Your task to perform on an android device: Open internet settings Image 0: 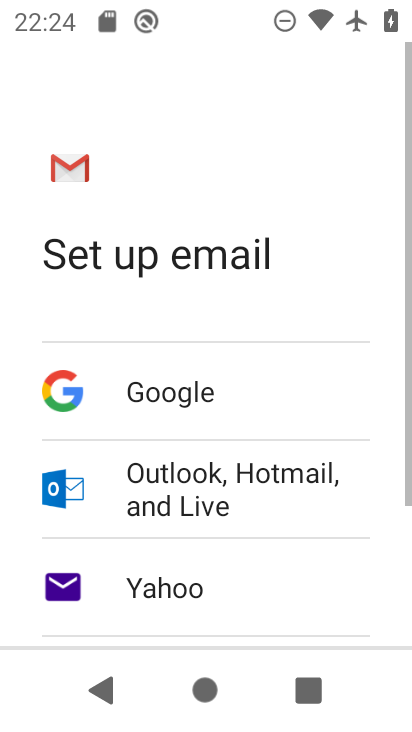
Step 0: press home button
Your task to perform on an android device: Open internet settings Image 1: 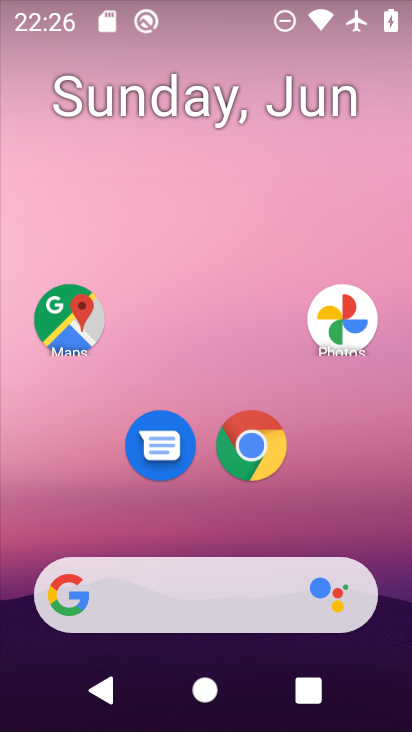
Step 1: drag from (285, 519) to (246, 36)
Your task to perform on an android device: Open internet settings Image 2: 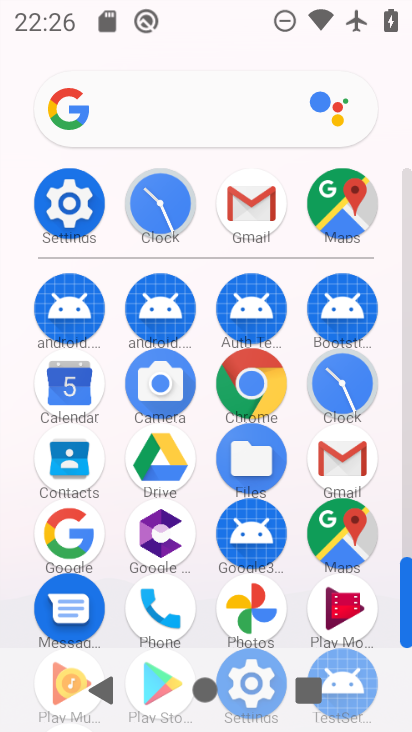
Step 2: click (71, 200)
Your task to perform on an android device: Open internet settings Image 3: 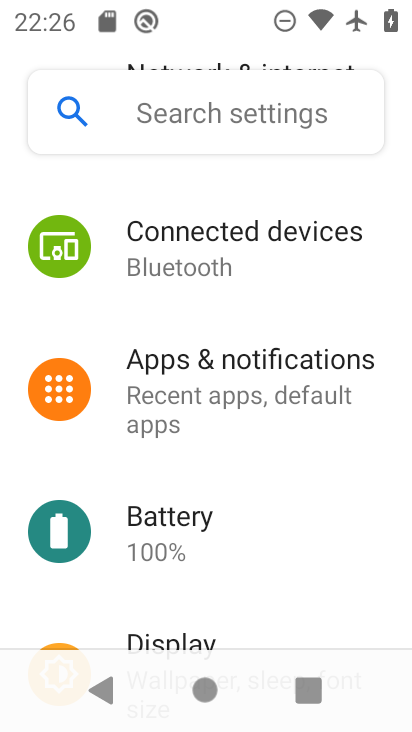
Step 3: drag from (246, 188) to (260, 645)
Your task to perform on an android device: Open internet settings Image 4: 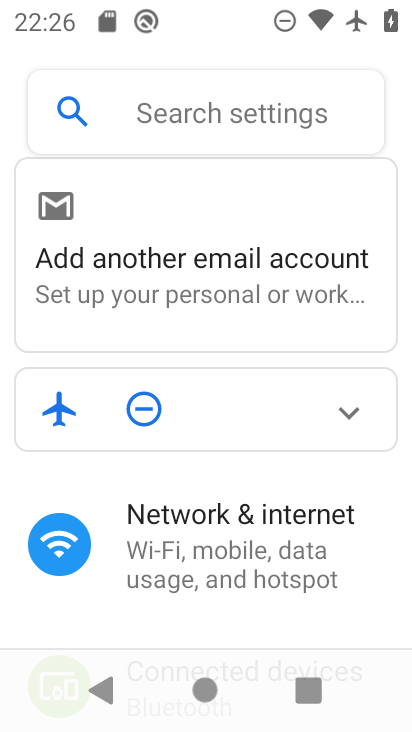
Step 4: click (221, 535)
Your task to perform on an android device: Open internet settings Image 5: 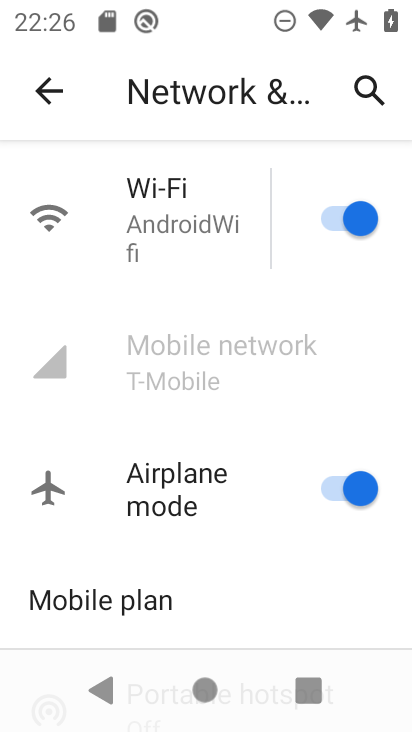
Step 5: task complete